Your task to perform on an android device: open sync settings in chrome Image 0: 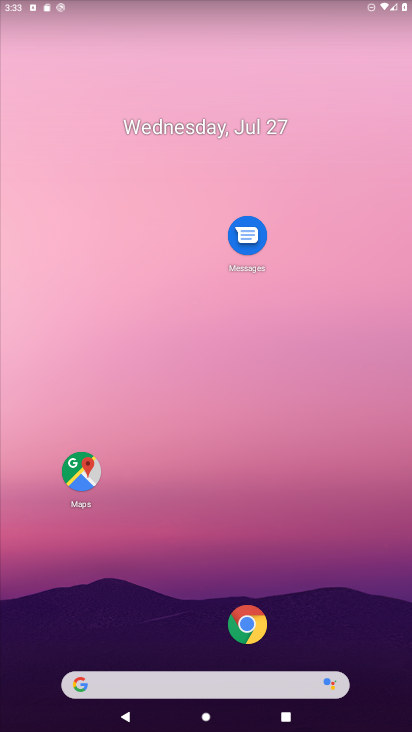
Step 0: click (246, 631)
Your task to perform on an android device: open sync settings in chrome Image 1: 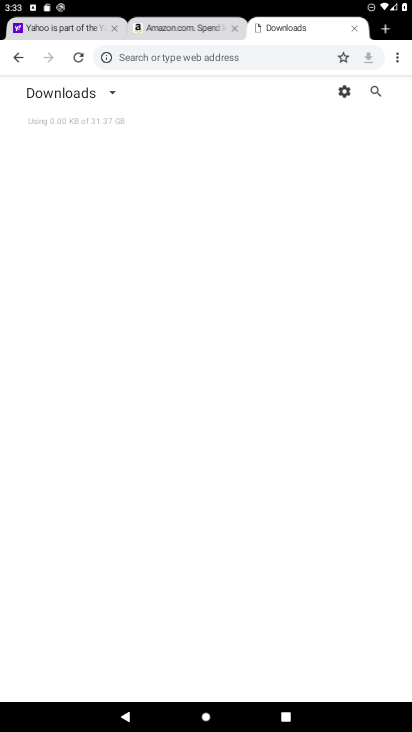
Step 1: click (403, 63)
Your task to perform on an android device: open sync settings in chrome Image 2: 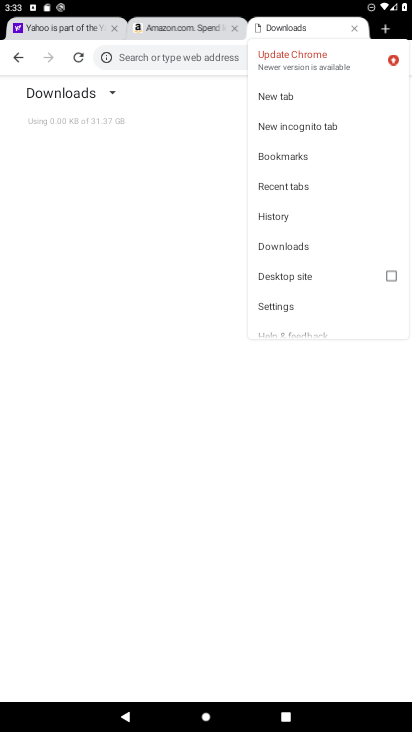
Step 2: click (263, 301)
Your task to perform on an android device: open sync settings in chrome Image 3: 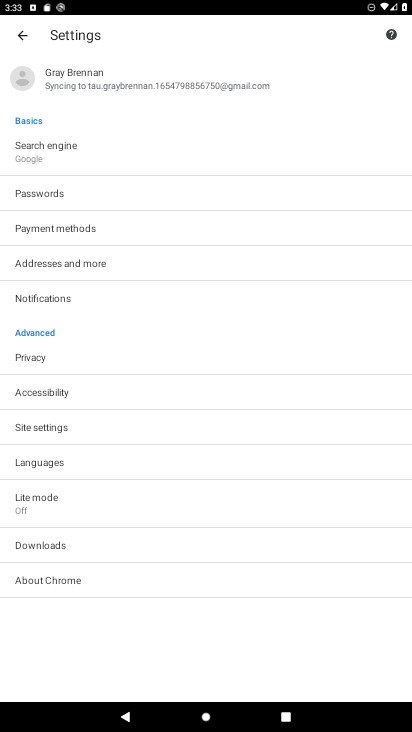
Step 3: click (52, 87)
Your task to perform on an android device: open sync settings in chrome Image 4: 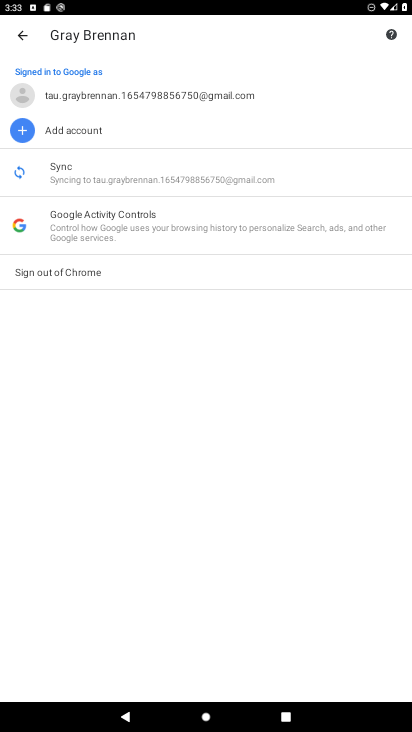
Step 4: click (65, 169)
Your task to perform on an android device: open sync settings in chrome Image 5: 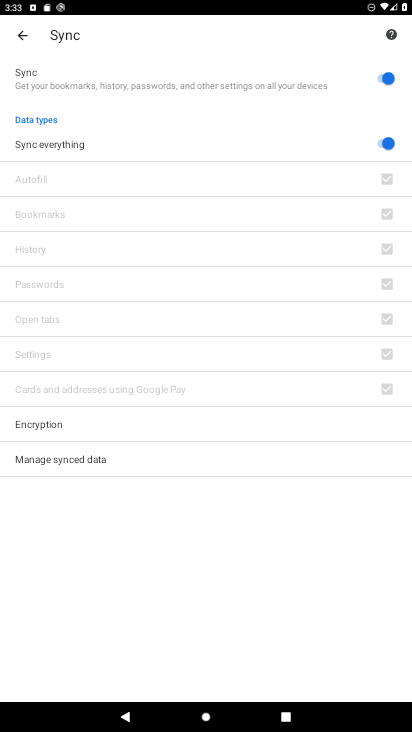
Step 5: task complete